Your task to perform on an android device: turn on translation in the chrome app Image 0: 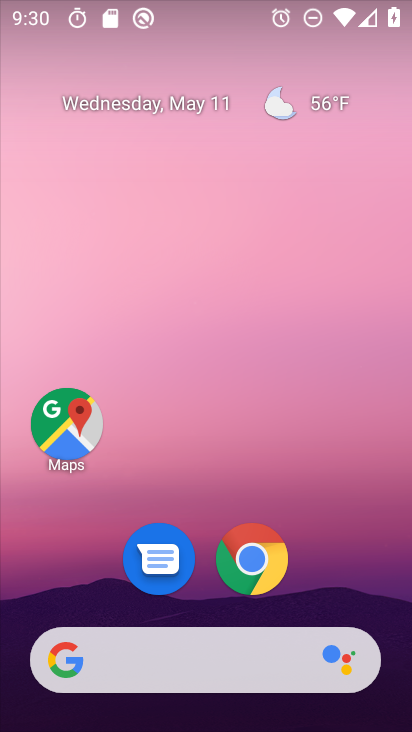
Step 0: click (269, 572)
Your task to perform on an android device: turn on translation in the chrome app Image 1: 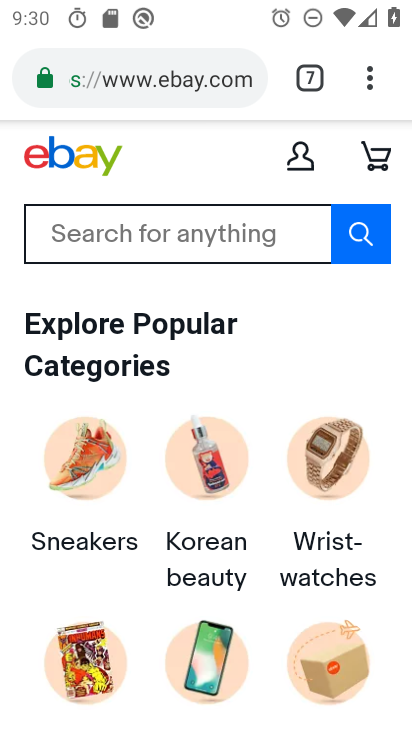
Step 1: click (381, 73)
Your task to perform on an android device: turn on translation in the chrome app Image 2: 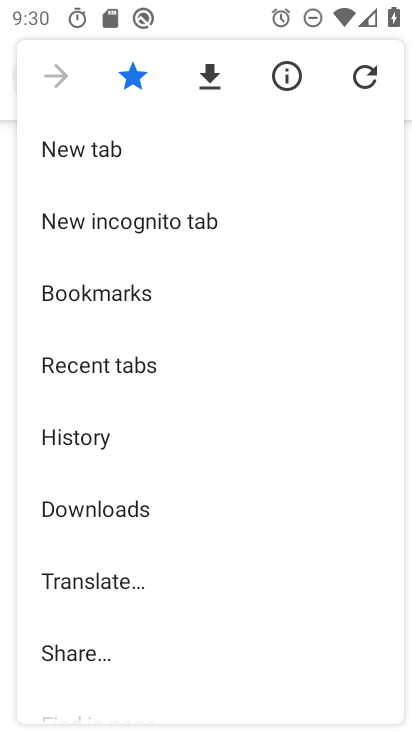
Step 2: drag from (245, 619) to (216, 276)
Your task to perform on an android device: turn on translation in the chrome app Image 3: 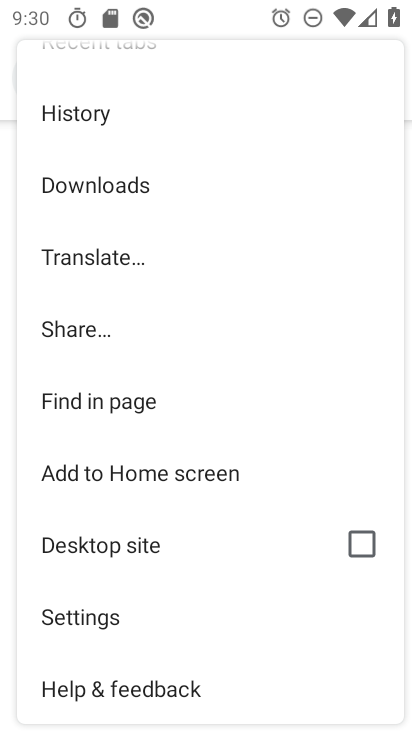
Step 3: click (91, 615)
Your task to perform on an android device: turn on translation in the chrome app Image 4: 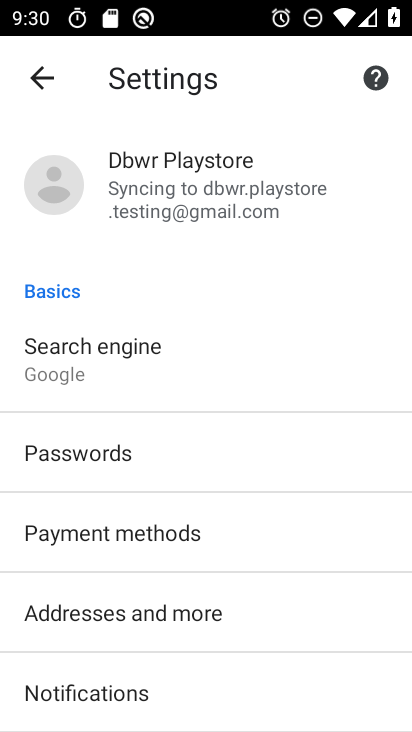
Step 4: drag from (333, 601) to (324, 264)
Your task to perform on an android device: turn on translation in the chrome app Image 5: 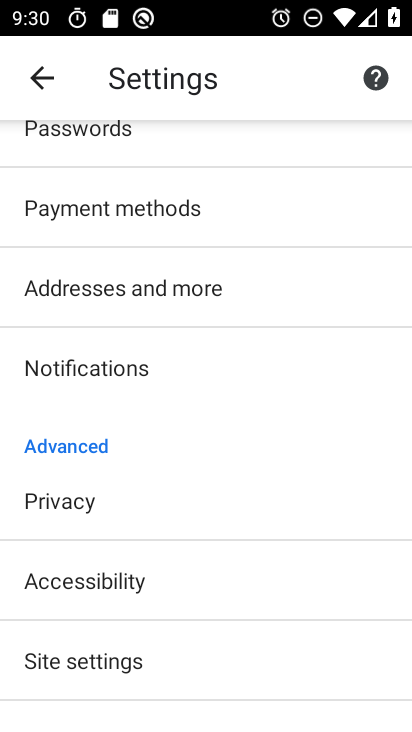
Step 5: drag from (236, 649) to (244, 313)
Your task to perform on an android device: turn on translation in the chrome app Image 6: 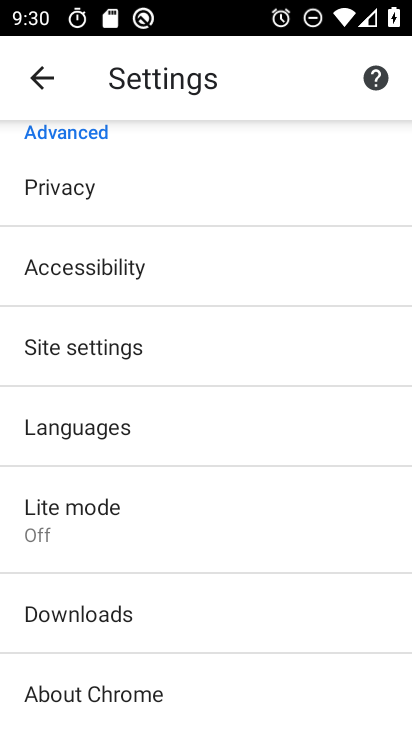
Step 6: click (192, 412)
Your task to perform on an android device: turn on translation in the chrome app Image 7: 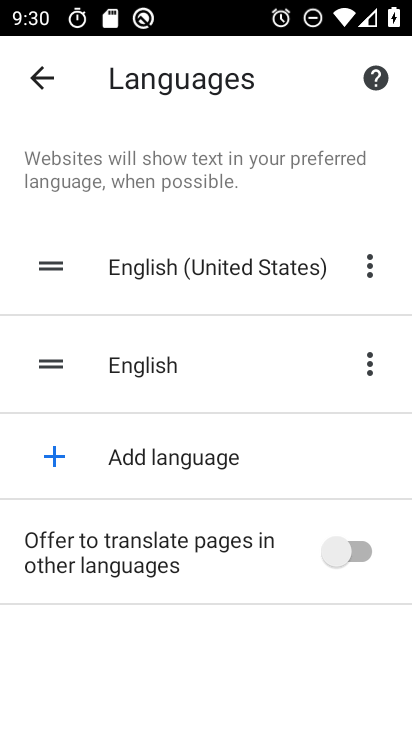
Step 7: click (364, 551)
Your task to perform on an android device: turn on translation in the chrome app Image 8: 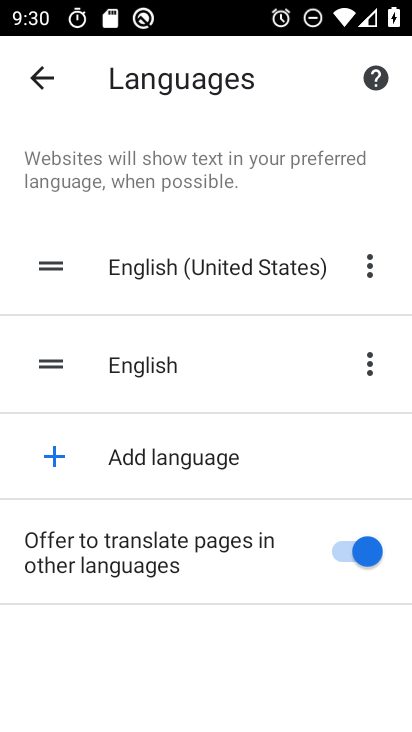
Step 8: task complete